Your task to perform on an android device: Go to wifi settings Image 0: 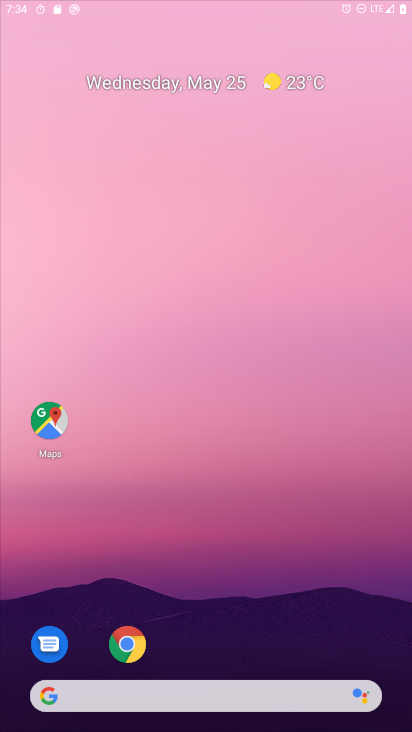
Step 0: drag from (353, 513) to (322, 45)
Your task to perform on an android device: Go to wifi settings Image 1: 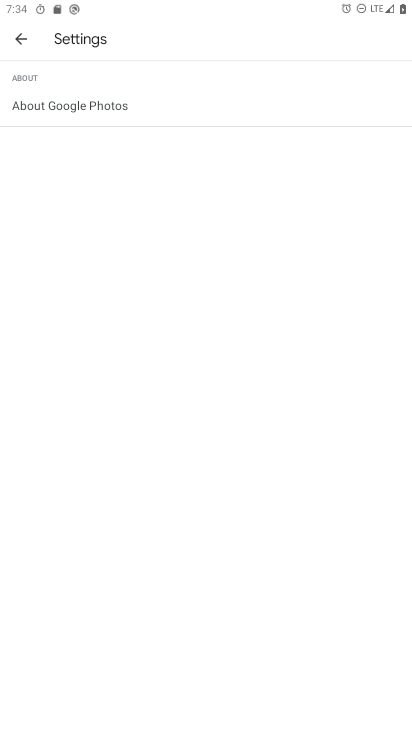
Step 1: press home button
Your task to perform on an android device: Go to wifi settings Image 2: 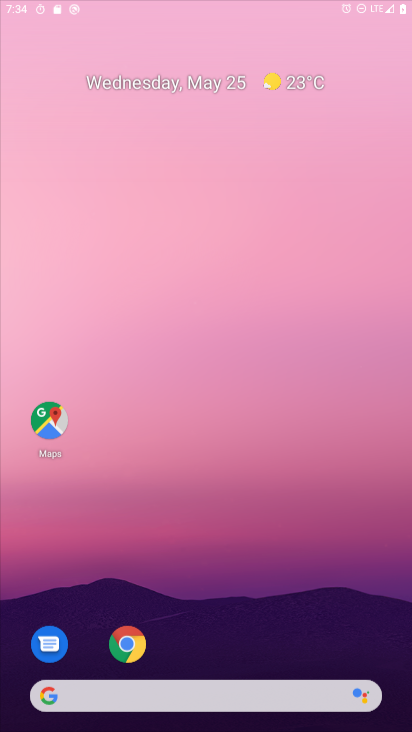
Step 2: drag from (378, 618) to (315, 32)
Your task to perform on an android device: Go to wifi settings Image 3: 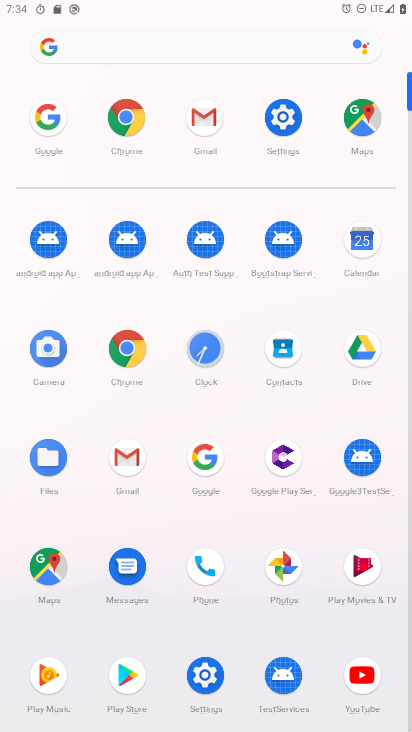
Step 3: click (284, 110)
Your task to perform on an android device: Go to wifi settings Image 4: 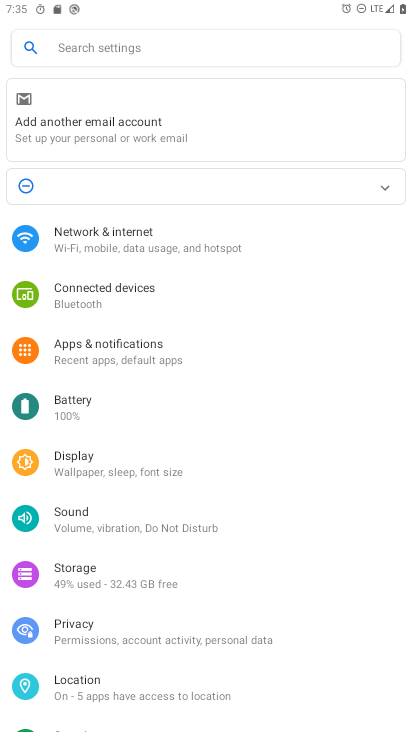
Step 4: click (169, 255)
Your task to perform on an android device: Go to wifi settings Image 5: 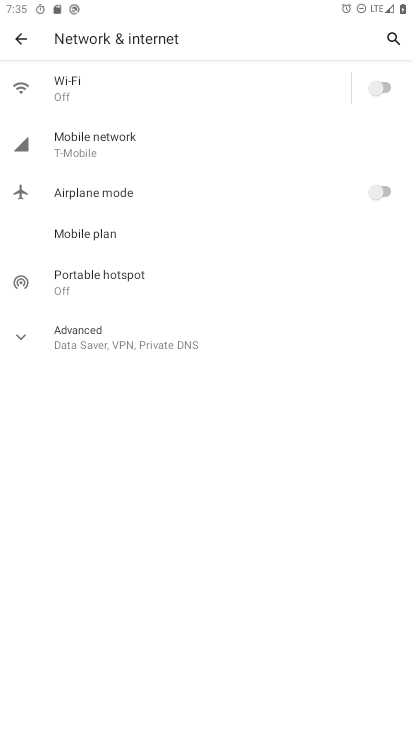
Step 5: click (178, 88)
Your task to perform on an android device: Go to wifi settings Image 6: 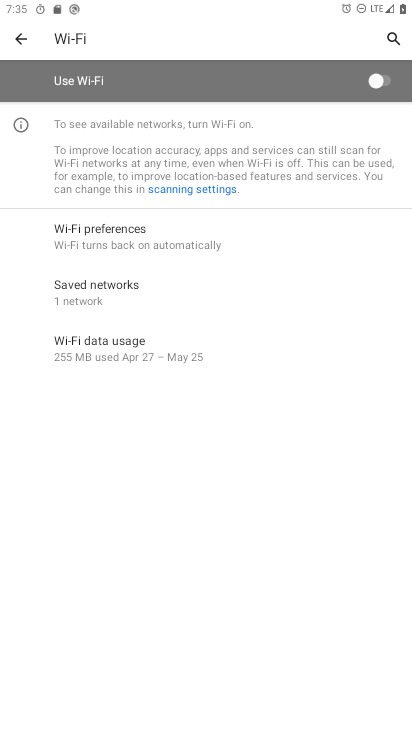
Step 6: task complete